Your task to perform on an android device: Show me productivity apps on the Play Store Image 0: 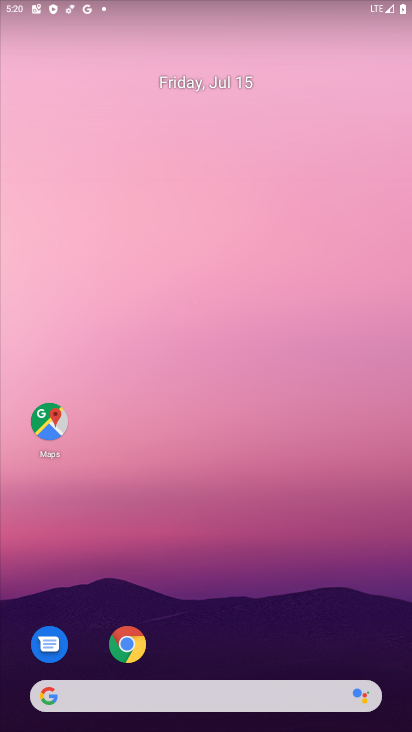
Step 0: drag from (197, 625) to (206, 313)
Your task to perform on an android device: Show me productivity apps on the Play Store Image 1: 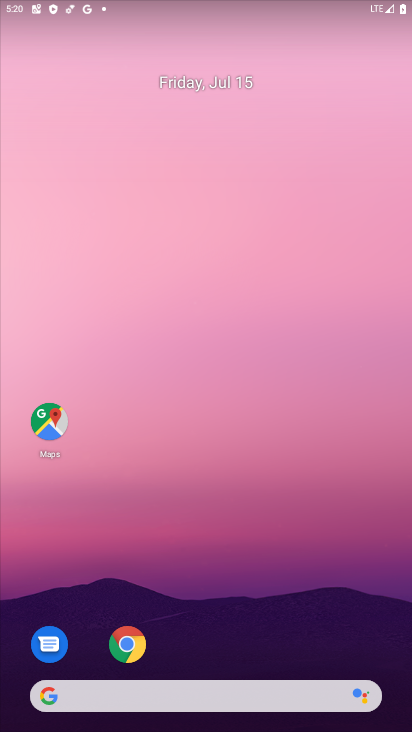
Step 1: drag from (200, 624) to (148, 209)
Your task to perform on an android device: Show me productivity apps on the Play Store Image 2: 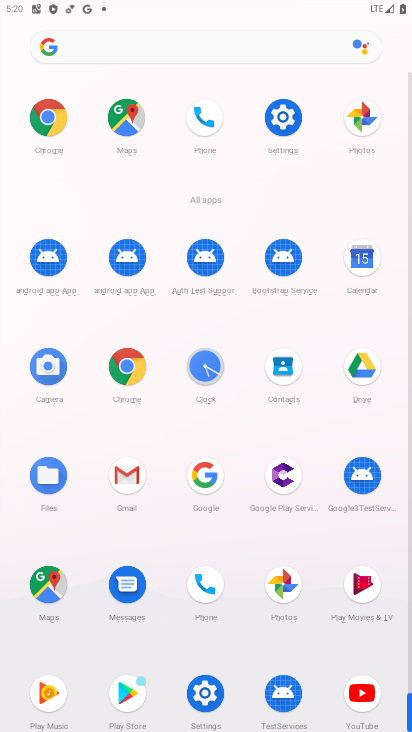
Step 2: click (126, 687)
Your task to perform on an android device: Show me productivity apps on the Play Store Image 3: 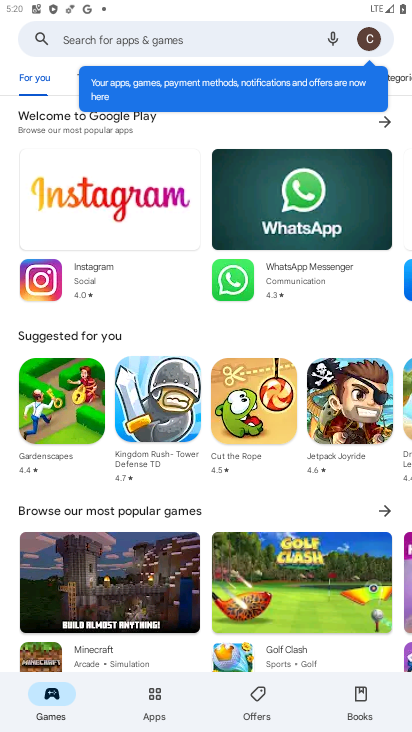
Step 3: click (147, 692)
Your task to perform on an android device: Show me productivity apps on the Play Store Image 4: 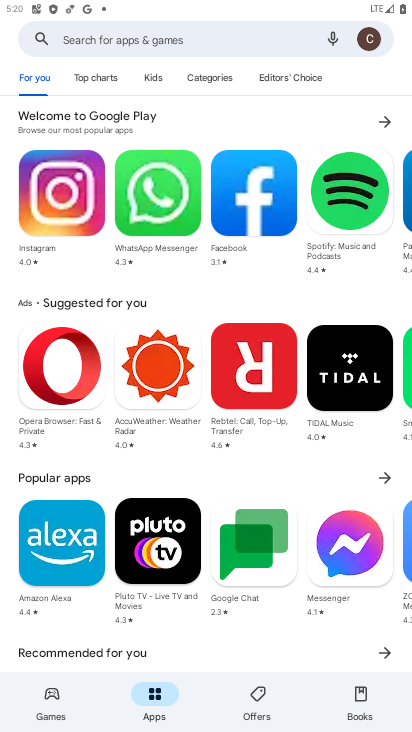
Step 4: click (225, 79)
Your task to perform on an android device: Show me productivity apps on the Play Store Image 5: 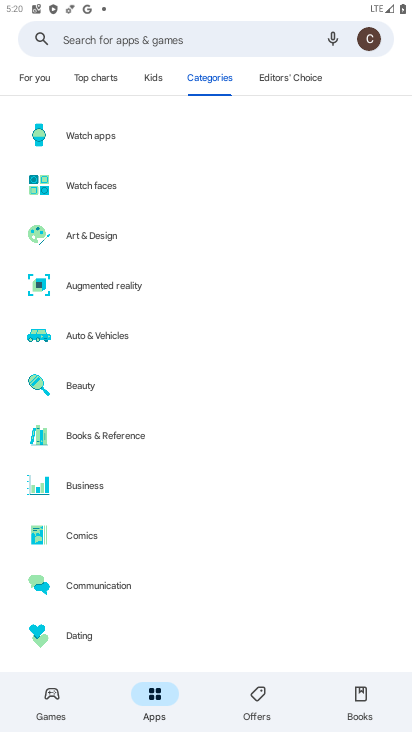
Step 5: drag from (305, 638) to (256, 317)
Your task to perform on an android device: Show me productivity apps on the Play Store Image 6: 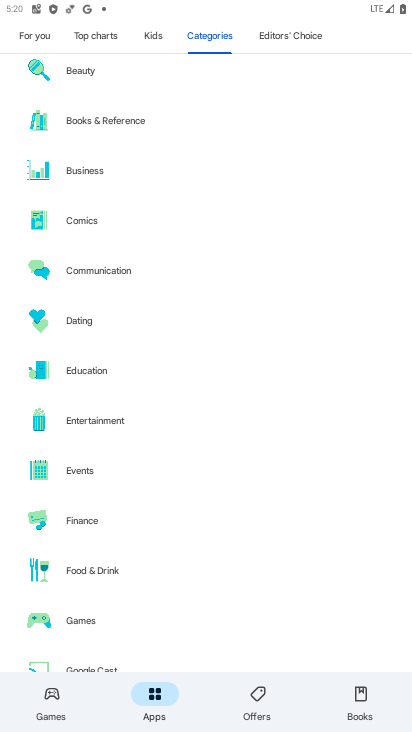
Step 6: drag from (273, 616) to (248, 348)
Your task to perform on an android device: Show me productivity apps on the Play Store Image 7: 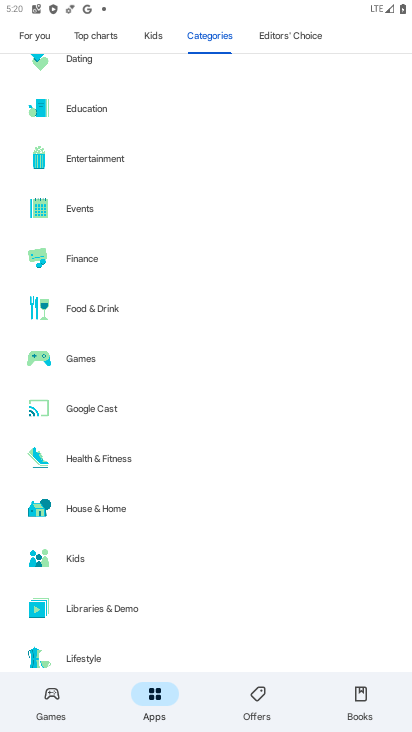
Step 7: drag from (274, 652) to (257, 372)
Your task to perform on an android device: Show me productivity apps on the Play Store Image 8: 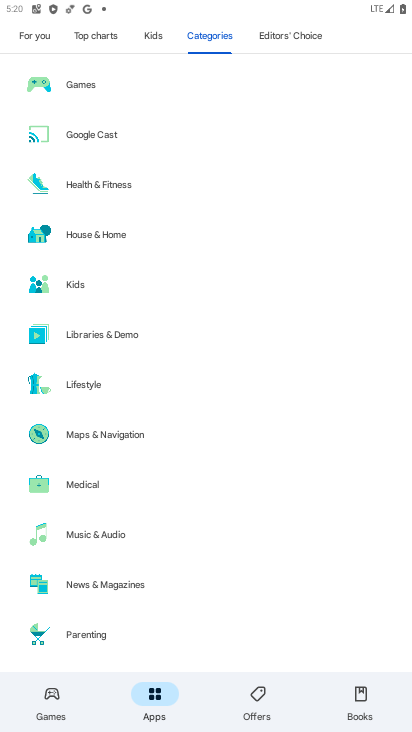
Step 8: drag from (263, 646) to (267, 367)
Your task to perform on an android device: Show me productivity apps on the Play Store Image 9: 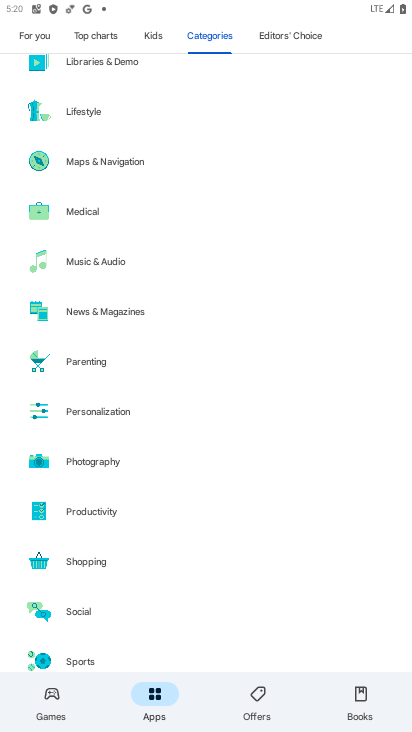
Step 9: click (83, 513)
Your task to perform on an android device: Show me productivity apps on the Play Store Image 10: 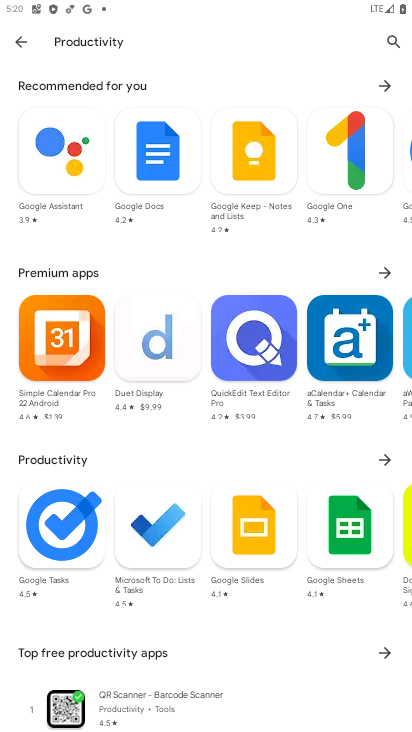
Step 10: task complete